Your task to perform on an android device: turn on improve location accuracy Image 0: 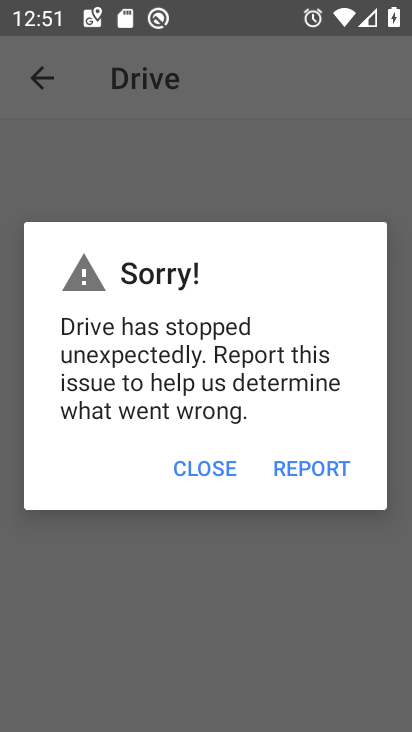
Step 0: press home button
Your task to perform on an android device: turn on improve location accuracy Image 1: 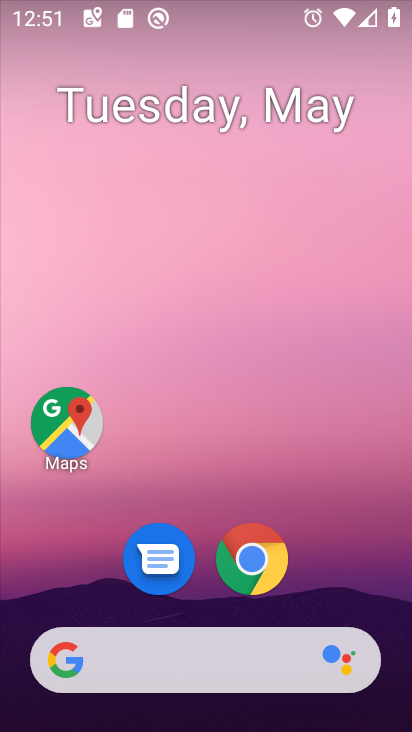
Step 1: drag from (370, 589) to (341, 124)
Your task to perform on an android device: turn on improve location accuracy Image 2: 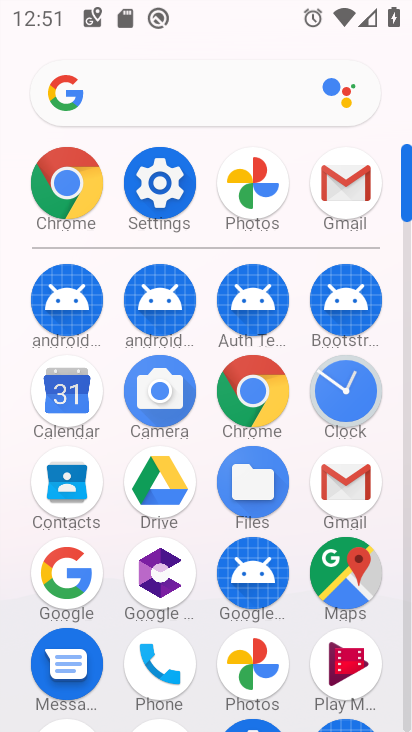
Step 2: click (154, 200)
Your task to perform on an android device: turn on improve location accuracy Image 3: 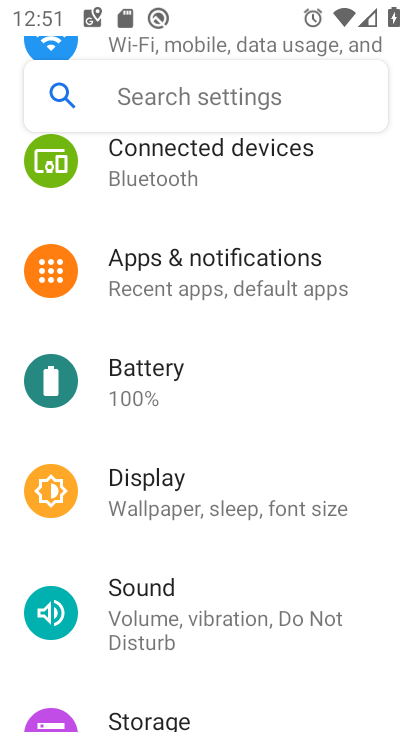
Step 3: drag from (303, 654) to (258, 142)
Your task to perform on an android device: turn on improve location accuracy Image 4: 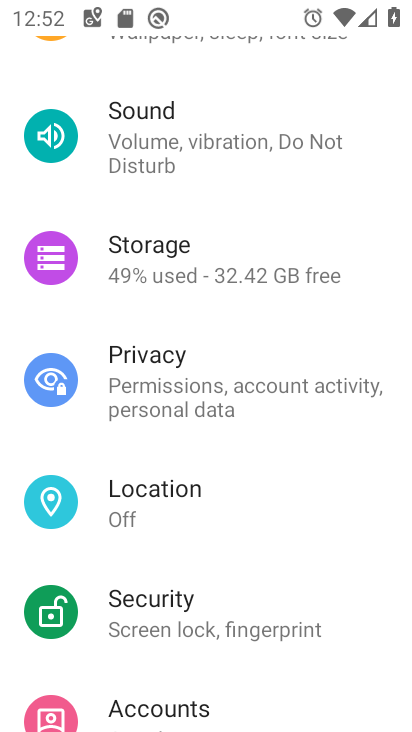
Step 4: click (234, 480)
Your task to perform on an android device: turn on improve location accuracy Image 5: 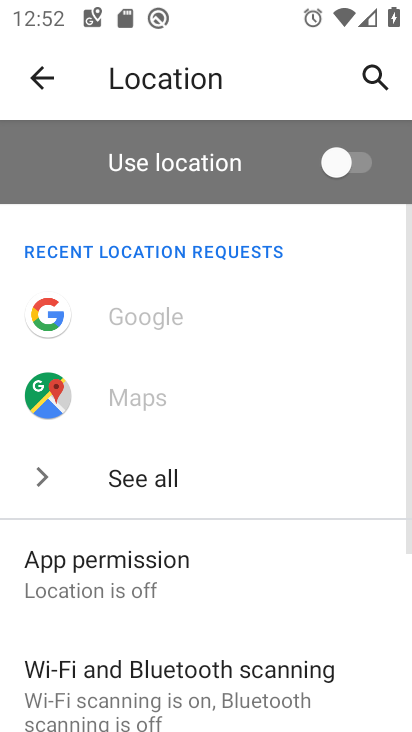
Step 5: drag from (261, 544) to (243, 207)
Your task to perform on an android device: turn on improve location accuracy Image 6: 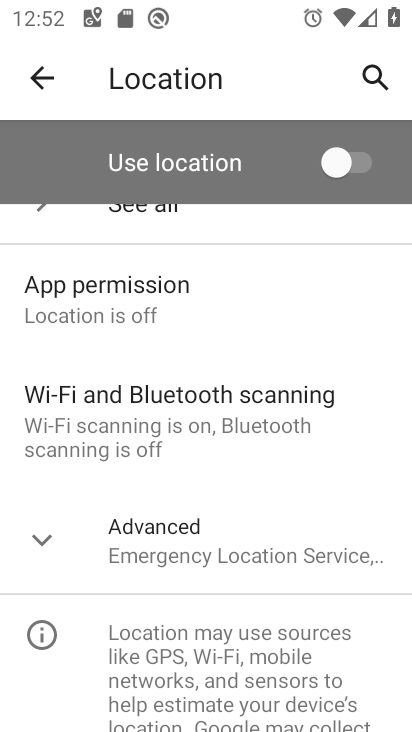
Step 6: click (289, 551)
Your task to perform on an android device: turn on improve location accuracy Image 7: 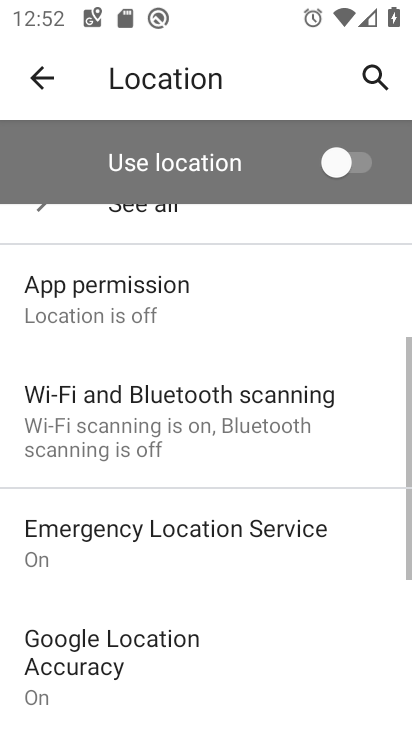
Step 7: drag from (268, 543) to (258, 214)
Your task to perform on an android device: turn on improve location accuracy Image 8: 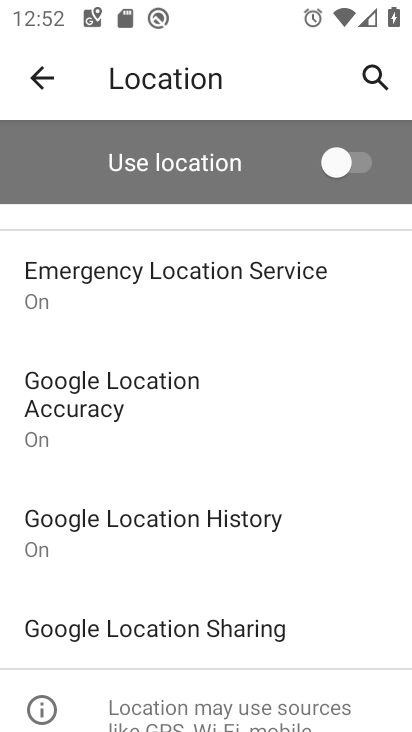
Step 8: click (272, 410)
Your task to perform on an android device: turn on improve location accuracy Image 9: 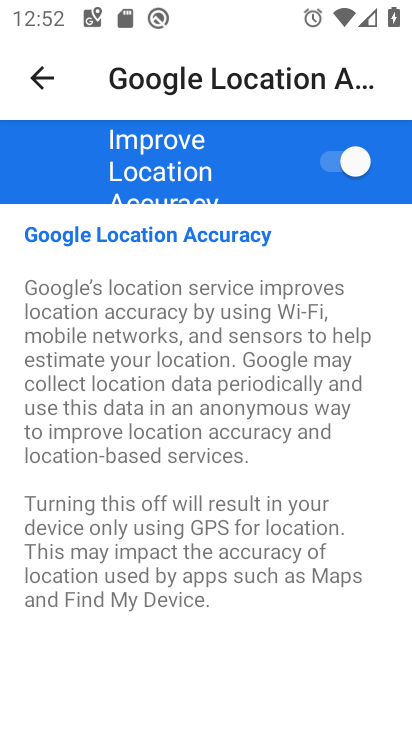
Step 9: task complete